Your task to perform on an android device: Search for pizza restaurants on Maps Image 0: 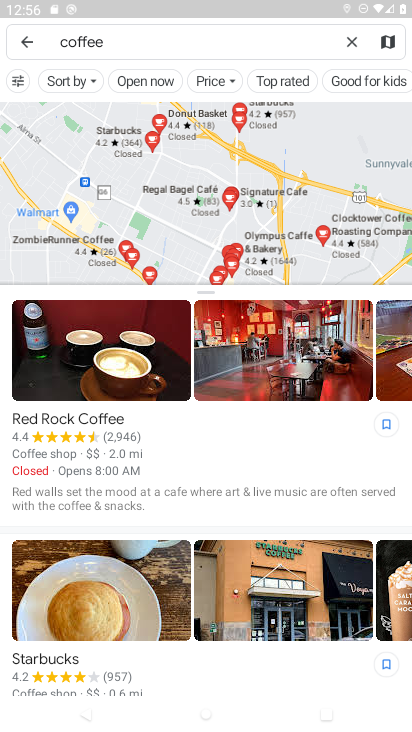
Step 0: click (166, 50)
Your task to perform on an android device: Search for pizza restaurants on Maps Image 1: 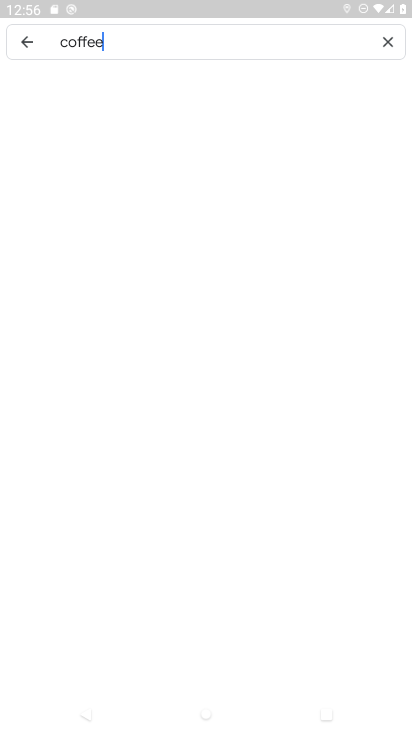
Step 1: click (345, 46)
Your task to perform on an android device: Search for pizza restaurants on Maps Image 2: 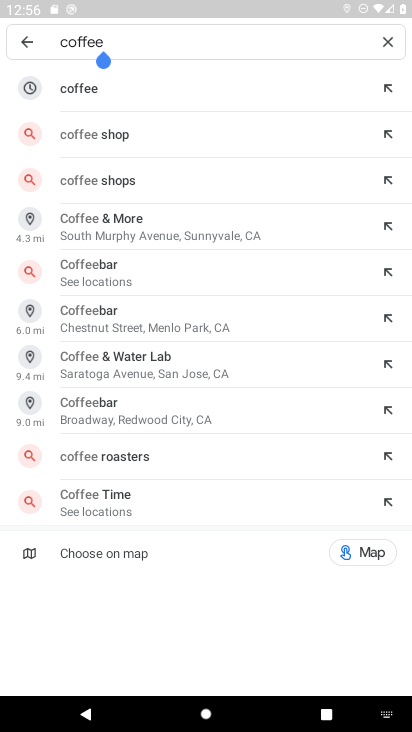
Step 2: click (392, 50)
Your task to perform on an android device: Search for pizza restaurants on Maps Image 3: 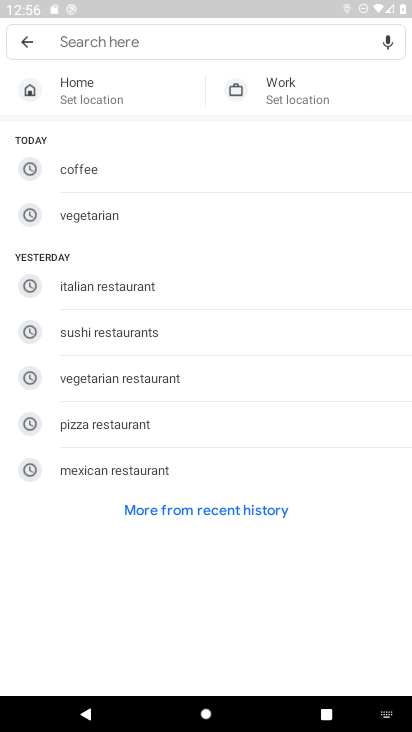
Step 3: type "pizza "
Your task to perform on an android device: Search for pizza restaurants on Maps Image 4: 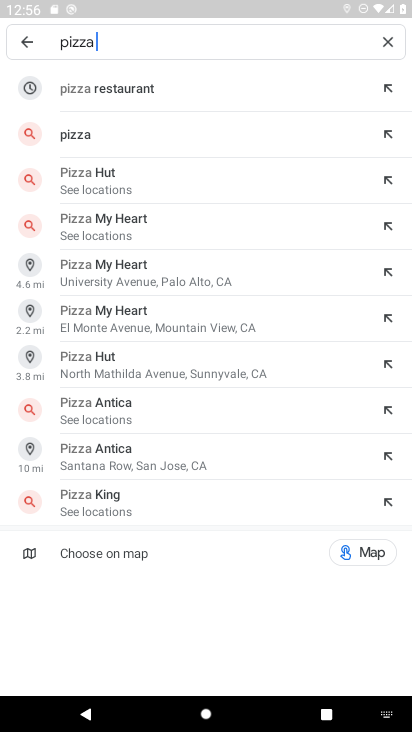
Step 4: click (155, 86)
Your task to perform on an android device: Search for pizza restaurants on Maps Image 5: 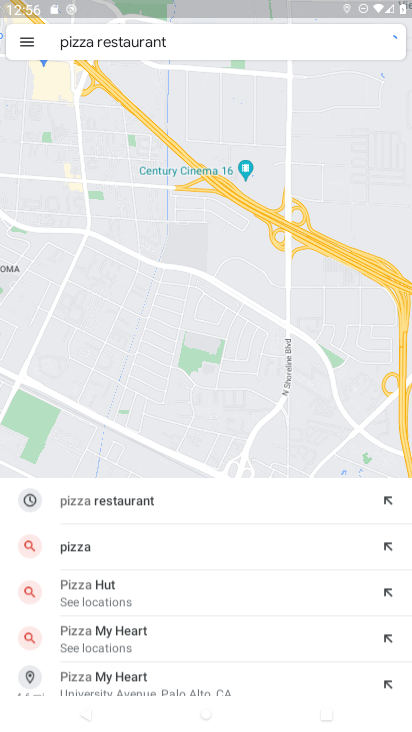
Step 5: task complete